Your task to perform on an android device: Show me popular games on the Play Store Image 0: 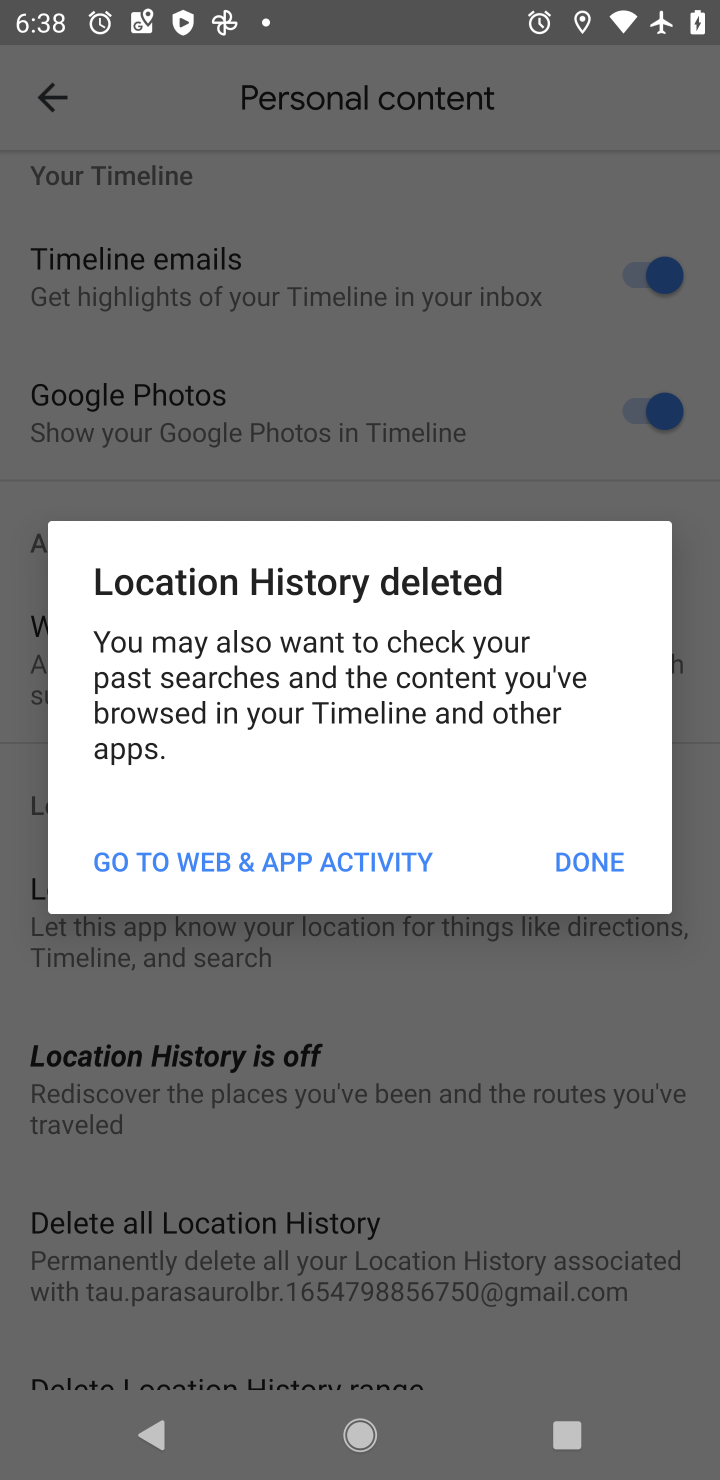
Step 0: press home button
Your task to perform on an android device: Show me popular games on the Play Store Image 1: 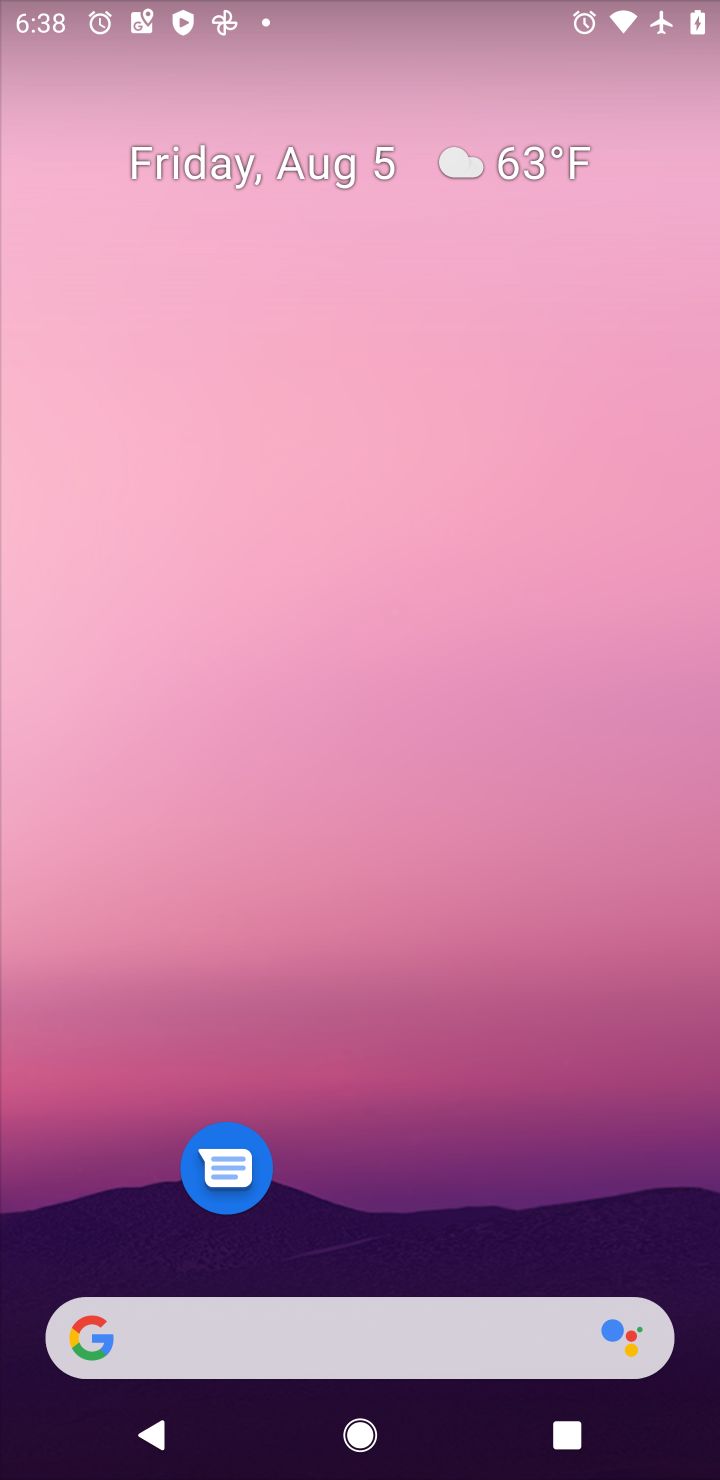
Step 1: drag from (420, 1163) to (410, 269)
Your task to perform on an android device: Show me popular games on the Play Store Image 2: 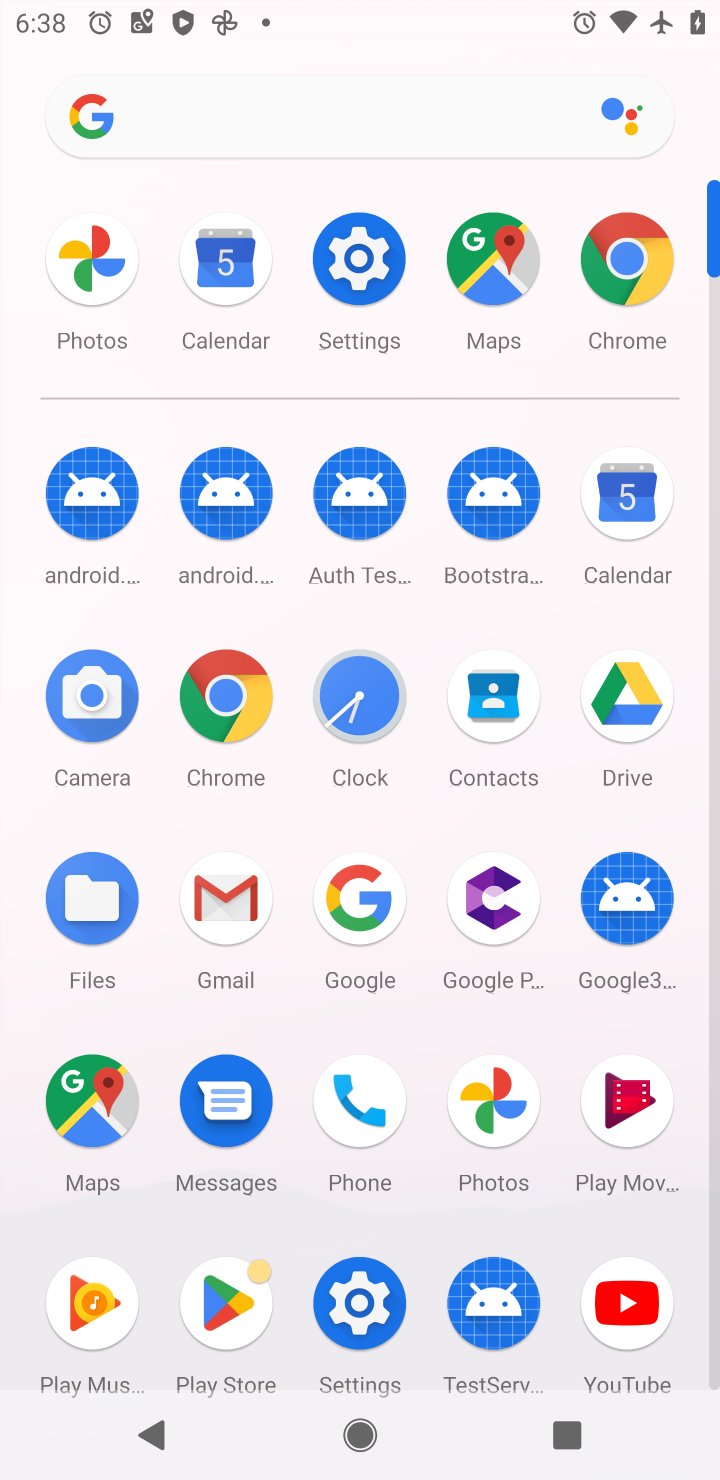
Step 2: click (217, 1305)
Your task to perform on an android device: Show me popular games on the Play Store Image 3: 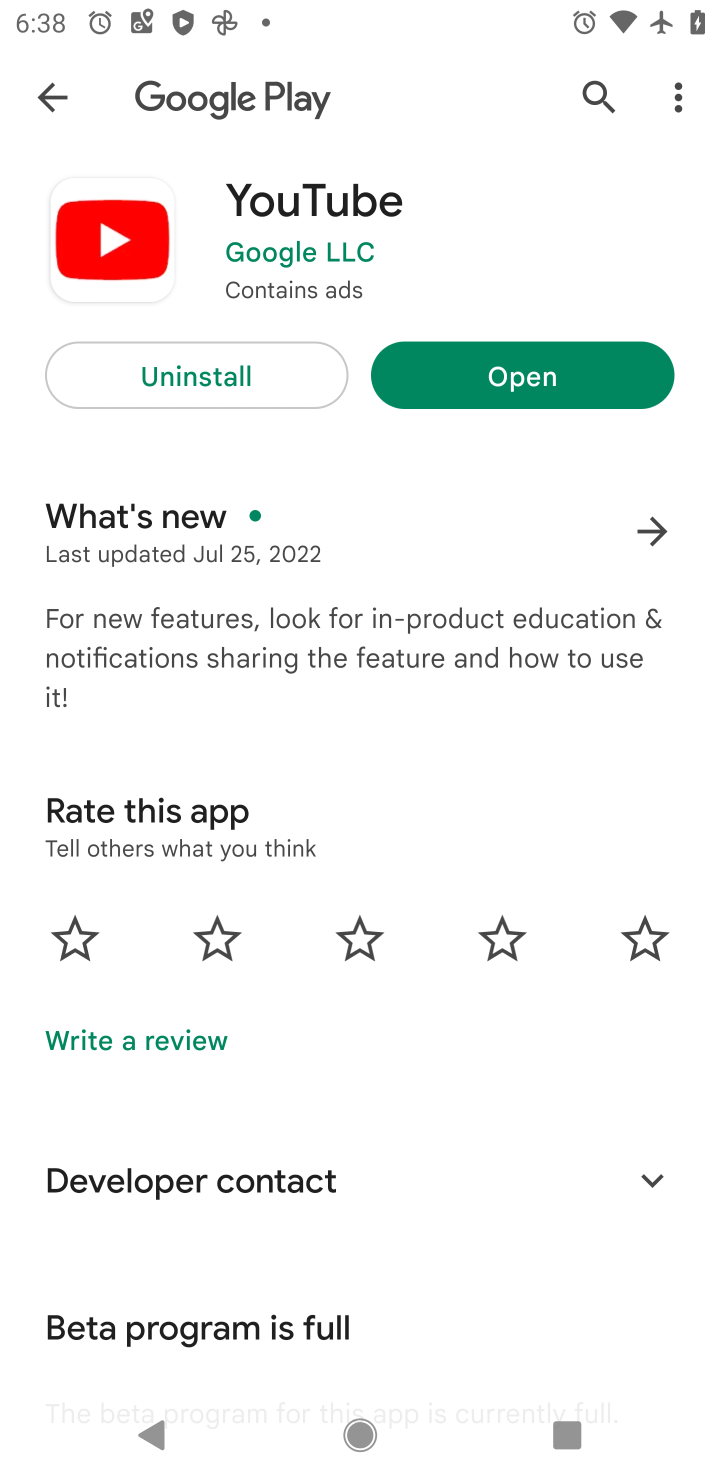
Step 3: click (62, 84)
Your task to perform on an android device: Show me popular games on the Play Store Image 4: 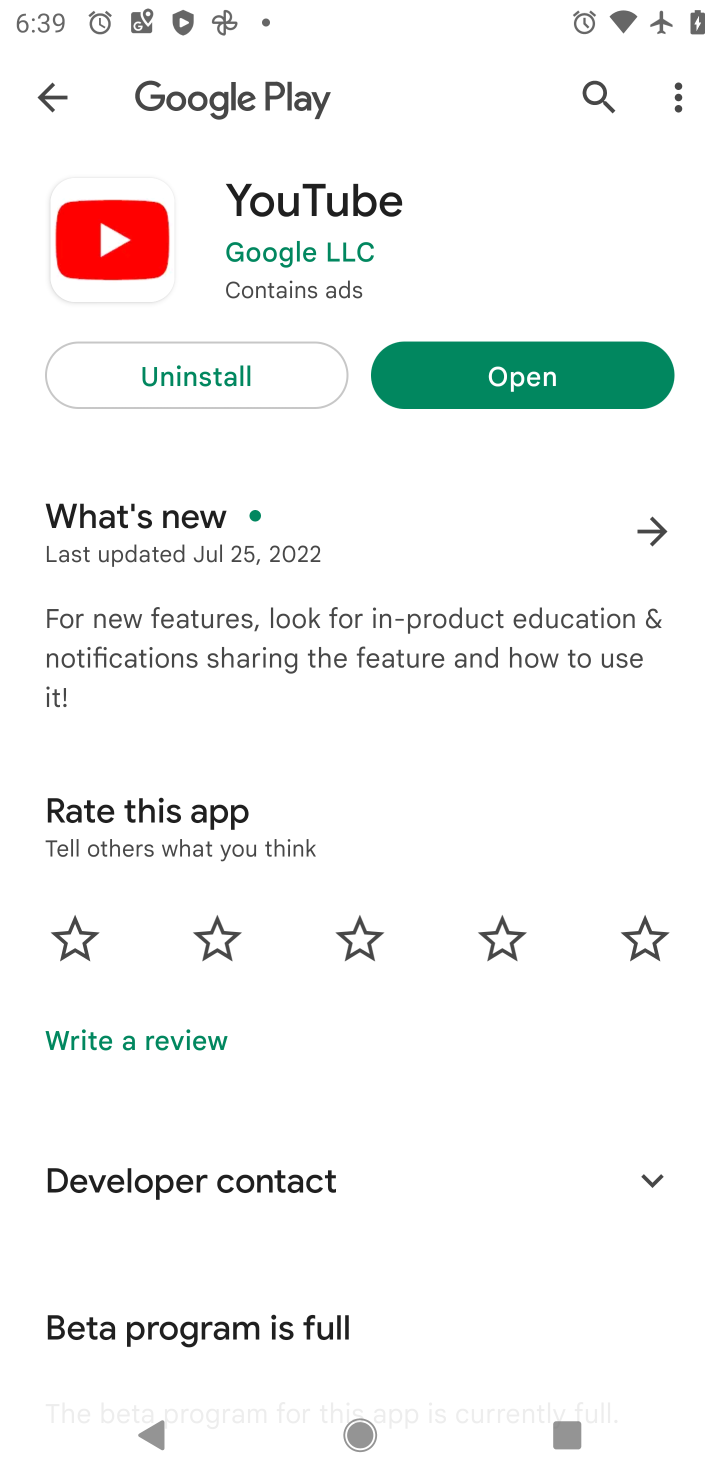
Step 4: click (44, 94)
Your task to perform on an android device: Show me popular games on the Play Store Image 5: 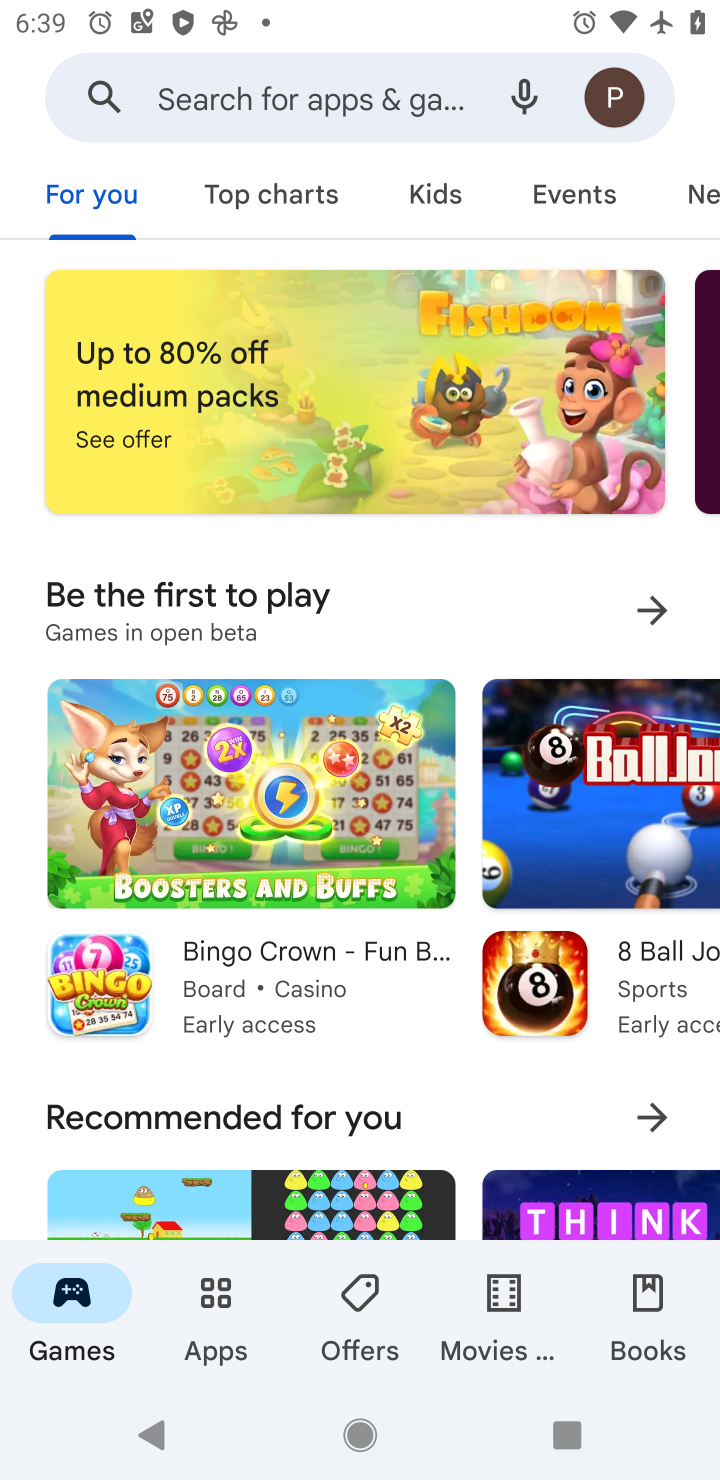
Step 5: drag from (377, 215) to (60, 185)
Your task to perform on an android device: Show me popular games on the Play Store Image 6: 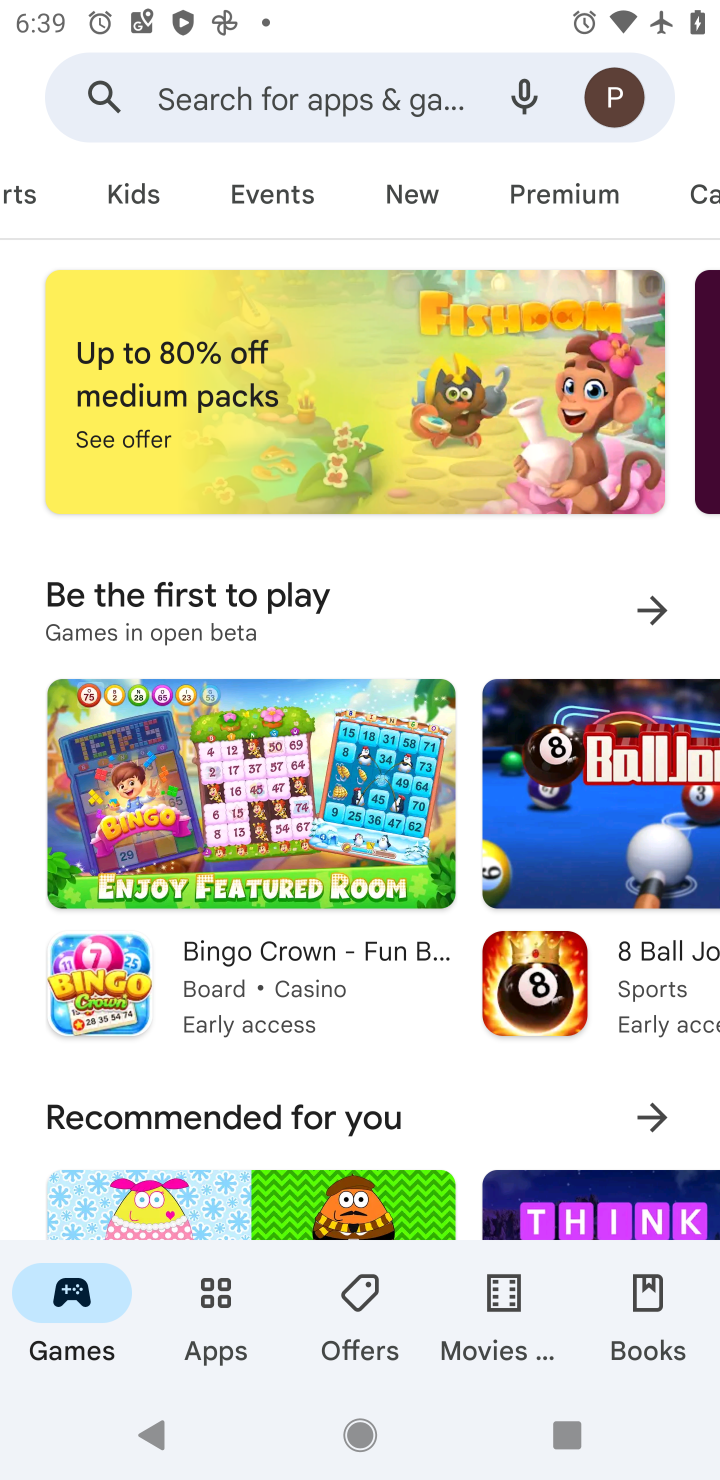
Step 6: click (703, 202)
Your task to perform on an android device: Show me popular games on the Play Store Image 7: 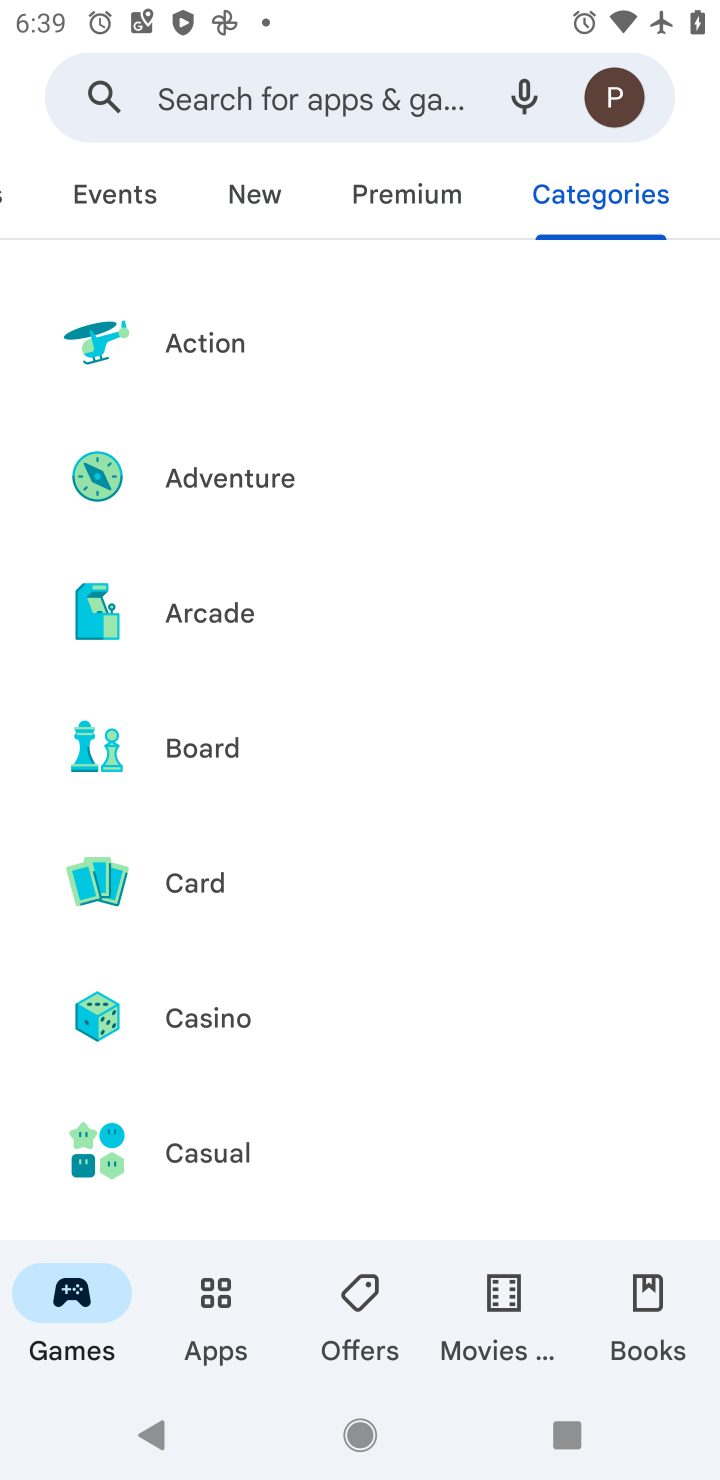
Step 7: task complete